Your task to perform on an android device: check storage Image 0: 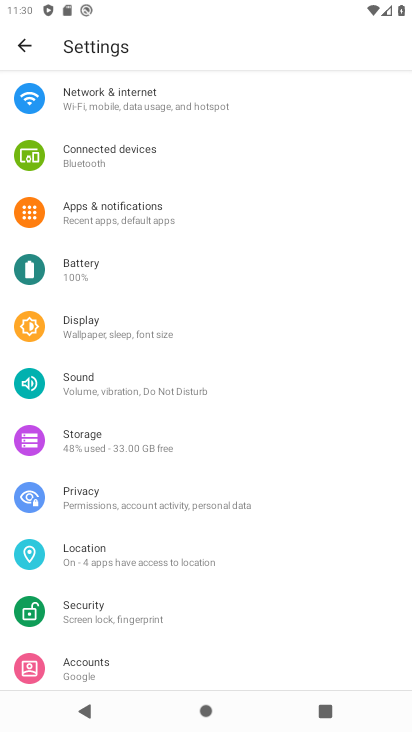
Step 0: drag from (212, 342) to (362, 51)
Your task to perform on an android device: check storage Image 1: 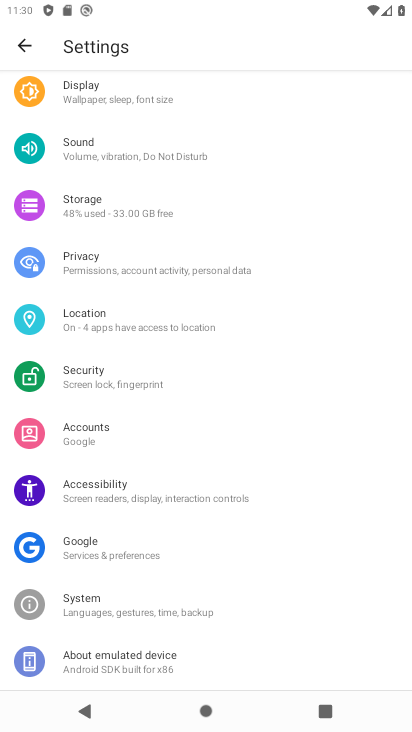
Step 1: drag from (176, 114) to (209, 701)
Your task to perform on an android device: check storage Image 2: 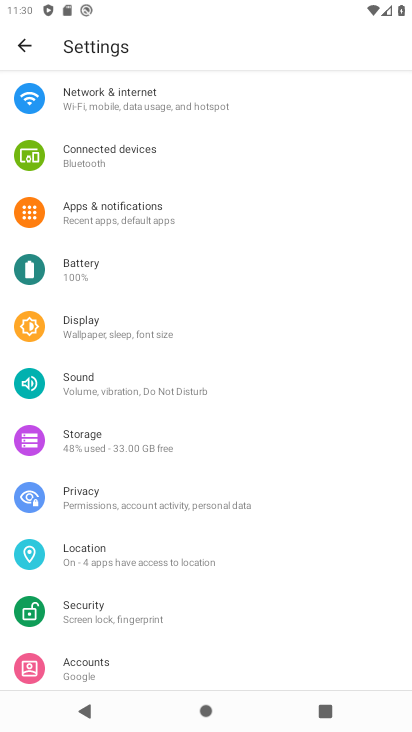
Step 2: press home button
Your task to perform on an android device: check storage Image 3: 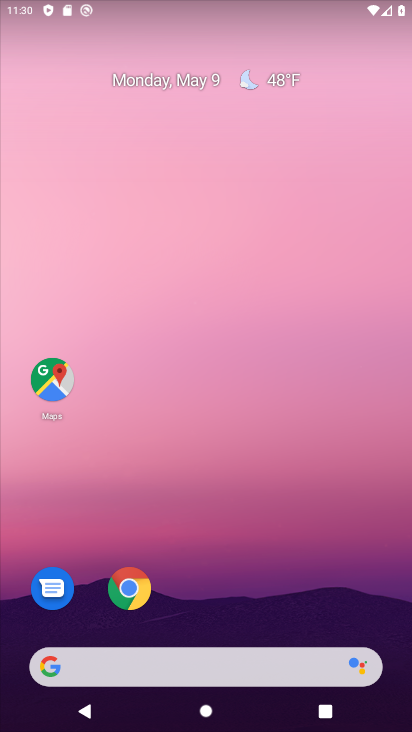
Step 3: drag from (251, 494) to (310, 215)
Your task to perform on an android device: check storage Image 4: 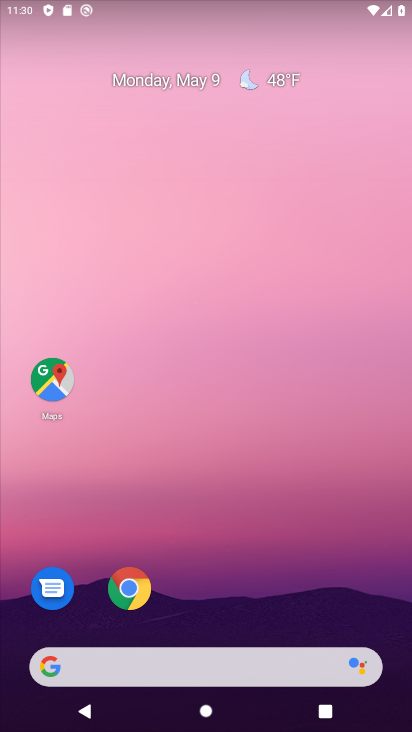
Step 4: drag from (207, 514) to (315, 274)
Your task to perform on an android device: check storage Image 5: 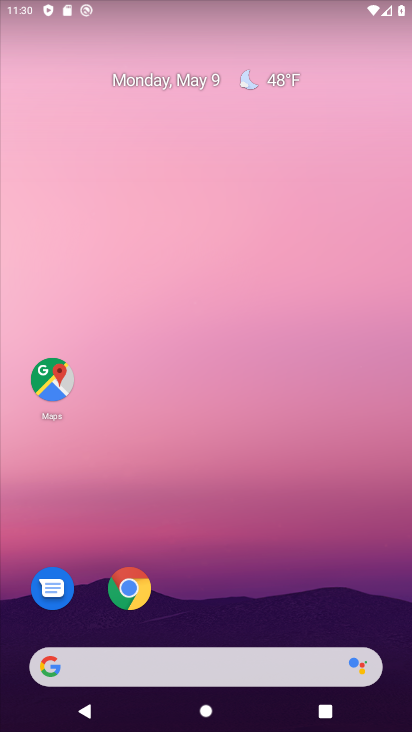
Step 5: drag from (184, 514) to (314, 83)
Your task to perform on an android device: check storage Image 6: 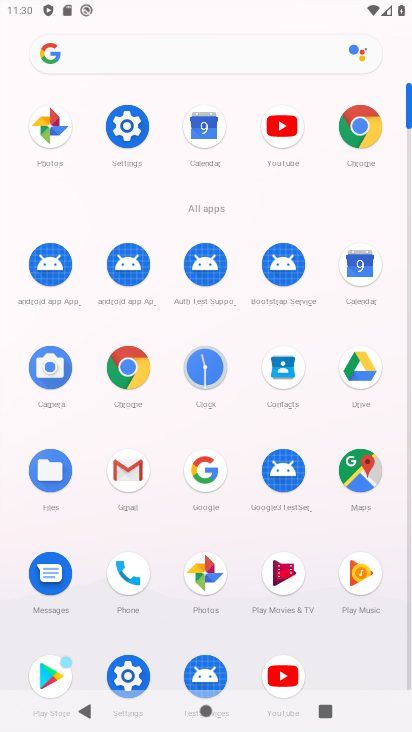
Step 6: click (138, 125)
Your task to perform on an android device: check storage Image 7: 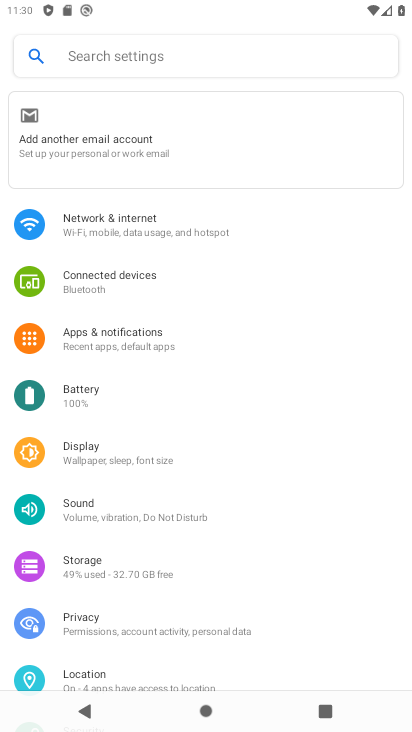
Step 7: click (84, 546)
Your task to perform on an android device: check storage Image 8: 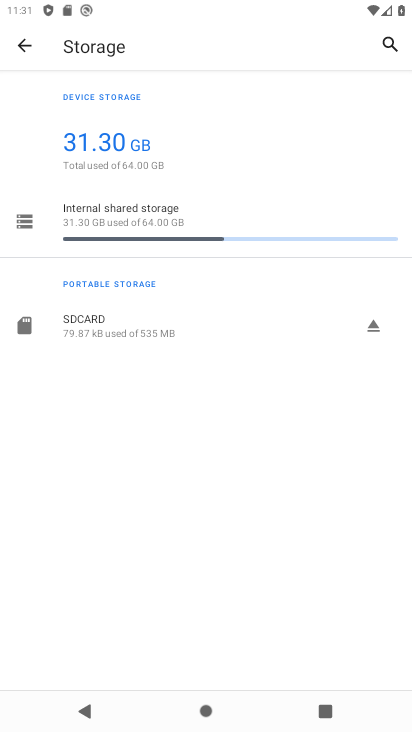
Step 8: task complete